Your task to perform on an android device: Open maps Image 0: 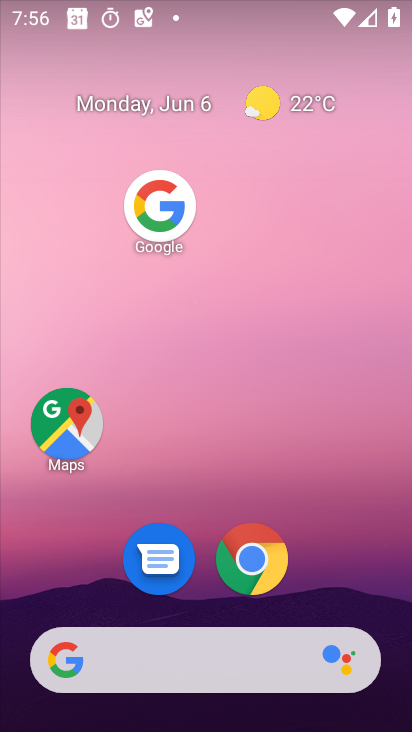
Step 0: drag from (255, 395) to (279, 142)
Your task to perform on an android device: Open maps Image 1: 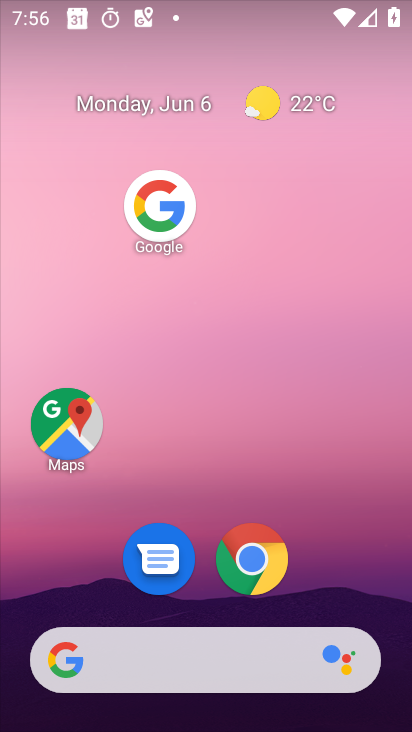
Step 1: click (70, 432)
Your task to perform on an android device: Open maps Image 2: 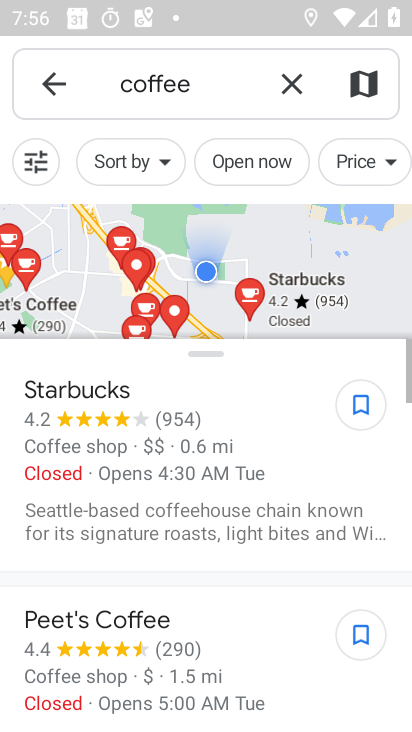
Step 2: task complete